Your task to perform on an android device: toggle show notifications on the lock screen Image 0: 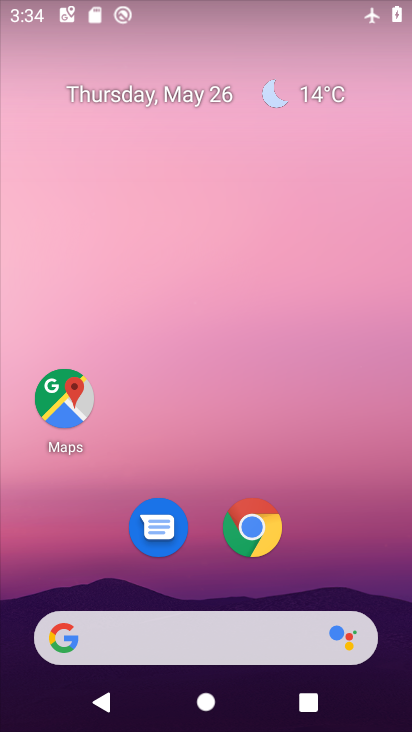
Step 0: click (260, 230)
Your task to perform on an android device: toggle show notifications on the lock screen Image 1: 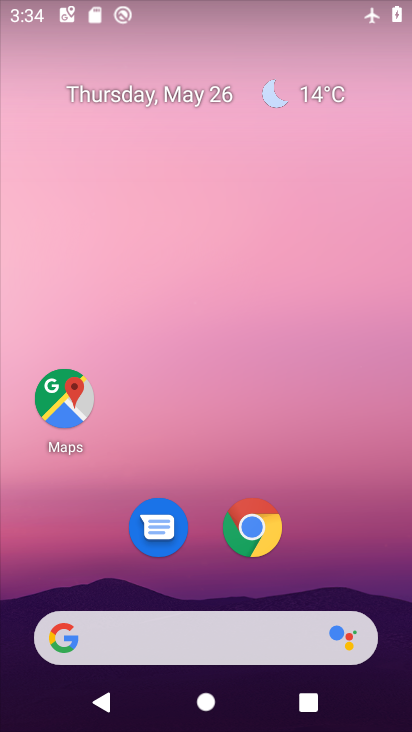
Step 1: drag from (352, 586) to (277, 157)
Your task to perform on an android device: toggle show notifications on the lock screen Image 2: 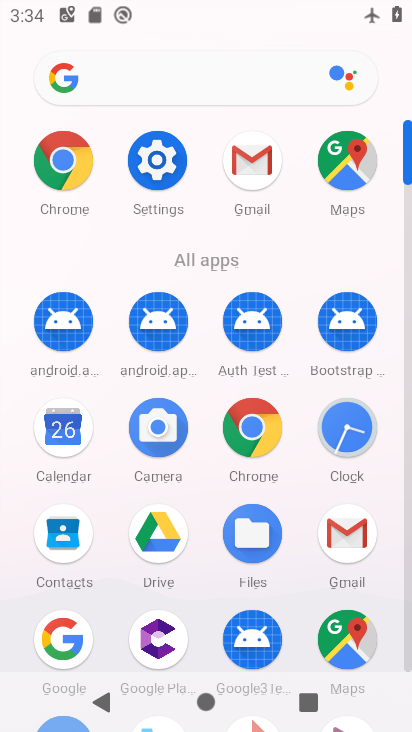
Step 2: click (161, 180)
Your task to perform on an android device: toggle show notifications on the lock screen Image 3: 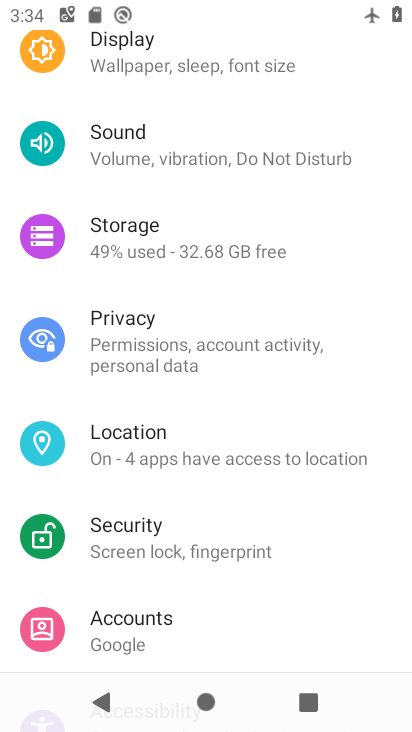
Step 3: drag from (226, 92) to (255, 570)
Your task to perform on an android device: toggle show notifications on the lock screen Image 4: 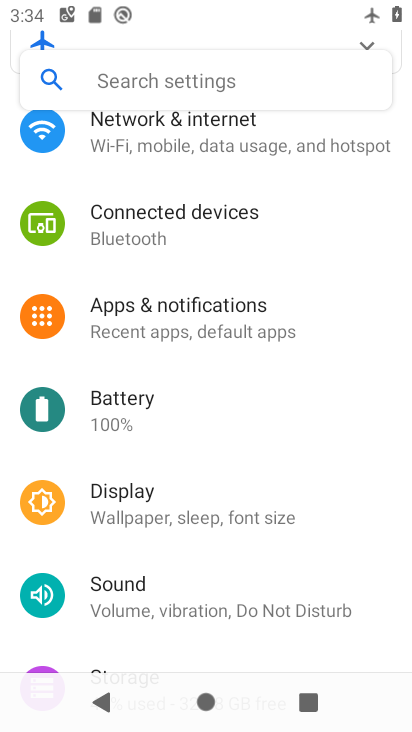
Step 4: click (242, 336)
Your task to perform on an android device: toggle show notifications on the lock screen Image 5: 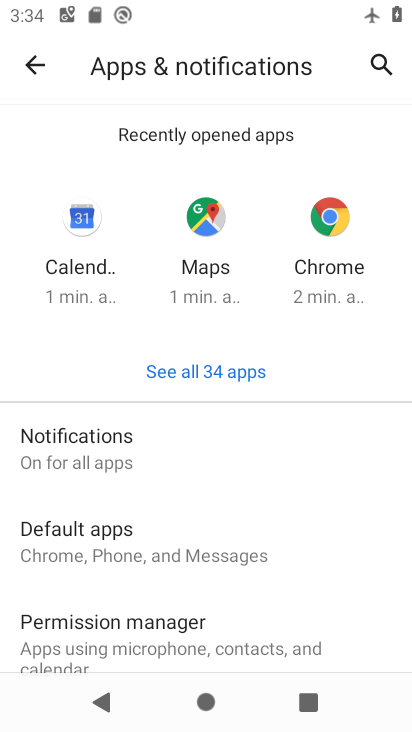
Step 5: click (247, 462)
Your task to perform on an android device: toggle show notifications on the lock screen Image 6: 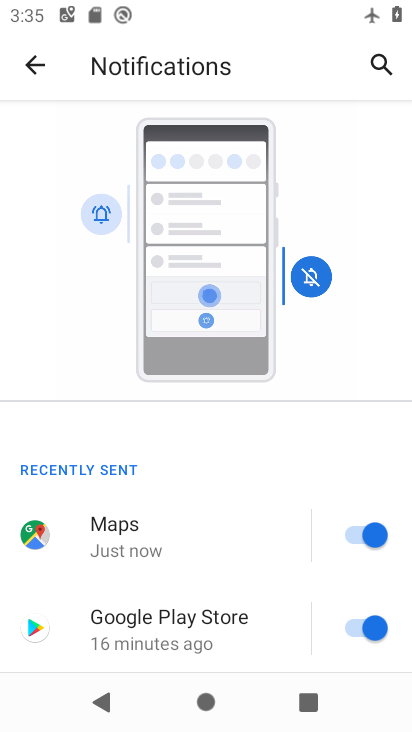
Step 6: drag from (270, 584) to (214, 236)
Your task to perform on an android device: toggle show notifications on the lock screen Image 7: 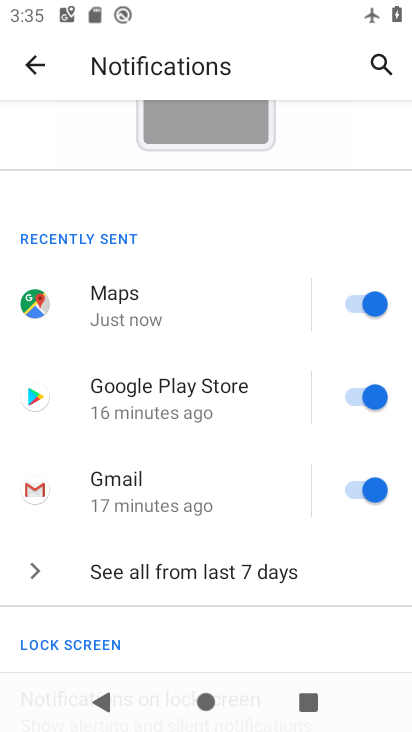
Step 7: drag from (248, 634) to (198, 301)
Your task to perform on an android device: toggle show notifications on the lock screen Image 8: 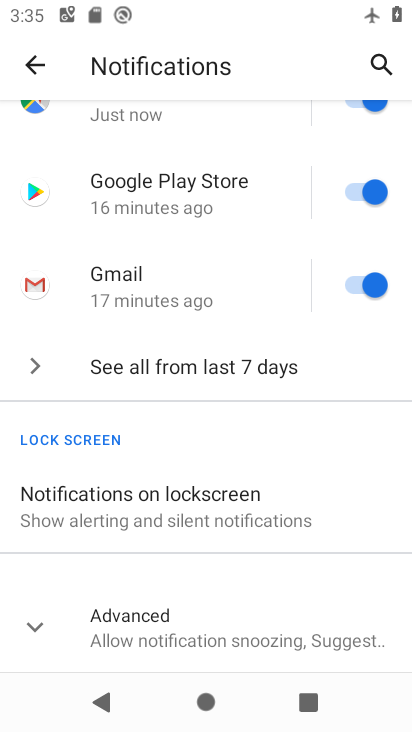
Step 8: click (229, 488)
Your task to perform on an android device: toggle show notifications on the lock screen Image 9: 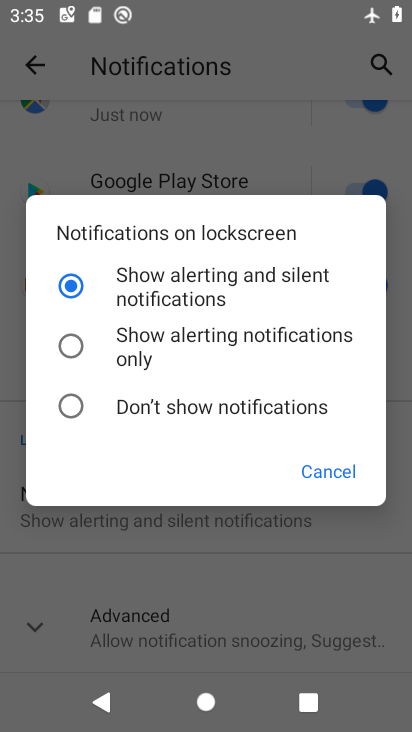
Step 9: click (244, 341)
Your task to perform on an android device: toggle show notifications on the lock screen Image 10: 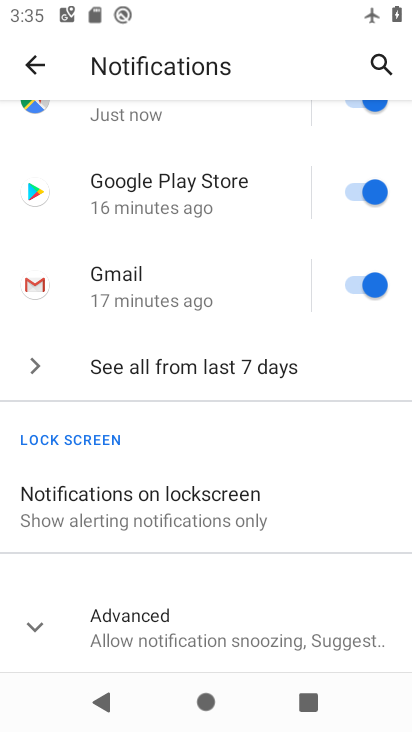
Step 10: task complete